Your task to perform on an android device: Open accessibility settings Image 0: 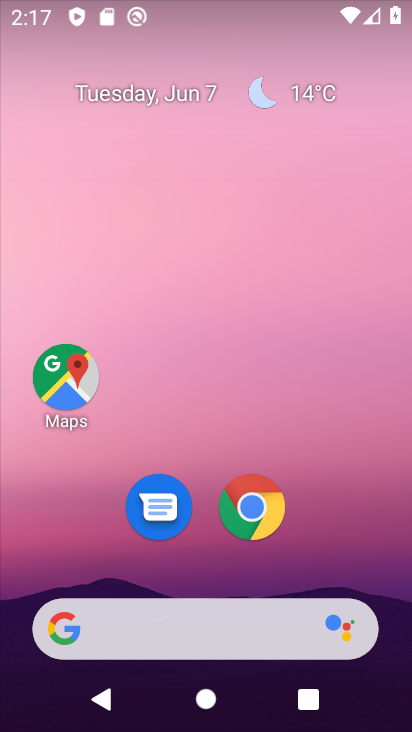
Step 0: drag from (352, 475) to (316, 77)
Your task to perform on an android device: Open accessibility settings Image 1: 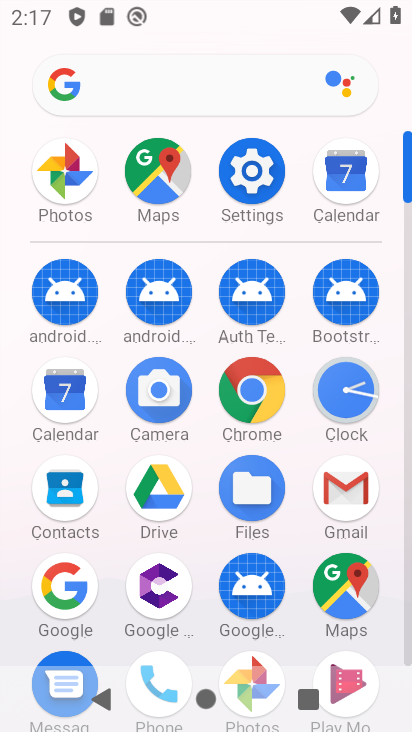
Step 1: click (267, 175)
Your task to perform on an android device: Open accessibility settings Image 2: 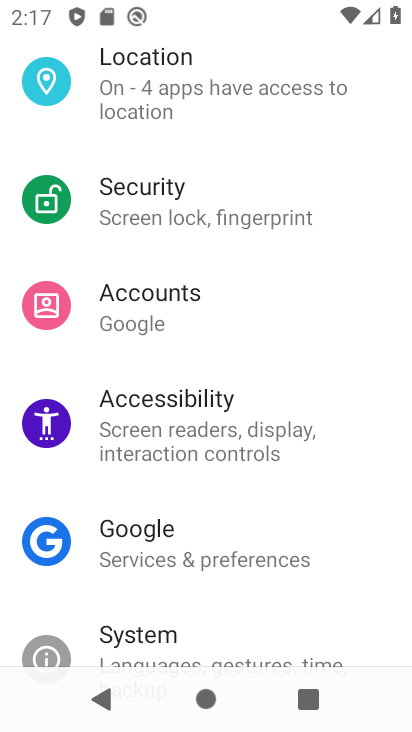
Step 2: click (214, 446)
Your task to perform on an android device: Open accessibility settings Image 3: 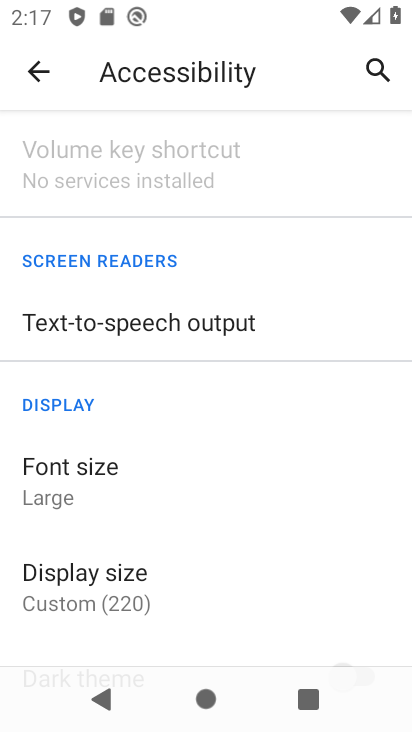
Step 3: task complete